Your task to perform on an android device: turn on location history Image 0: 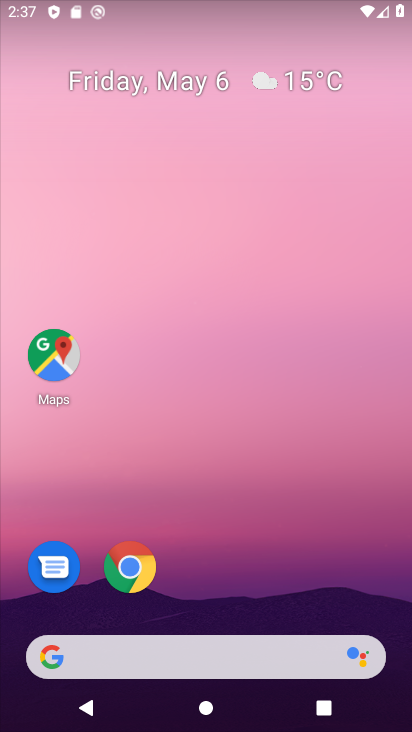
Step 0: drag from (187, 634) to (318, 44)
Your task to perform on an android device: turn on location history Image 1: 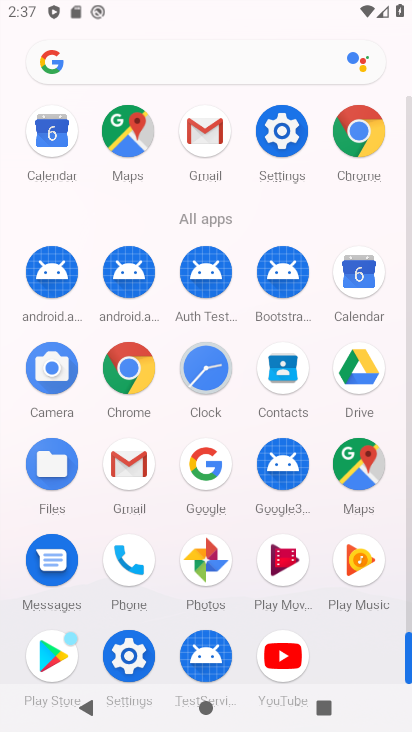
Step 1: click (122, 668)
Your task to perform on an android device: turn on location history Image 2: 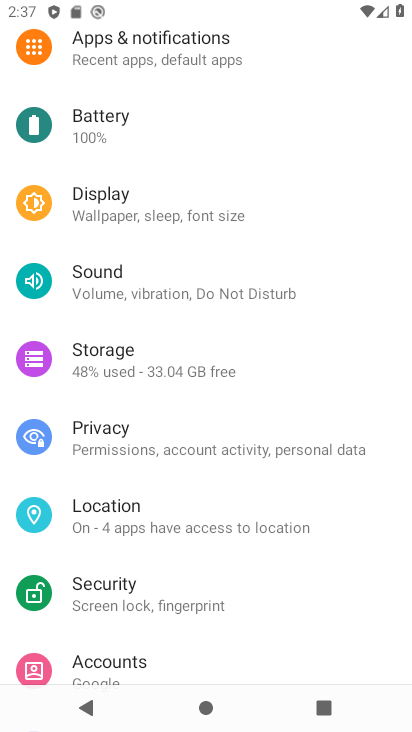
Step 2: drag from (167, 651) to (205, 497)
Your task to perform on an android device: turn on location history Image 3: 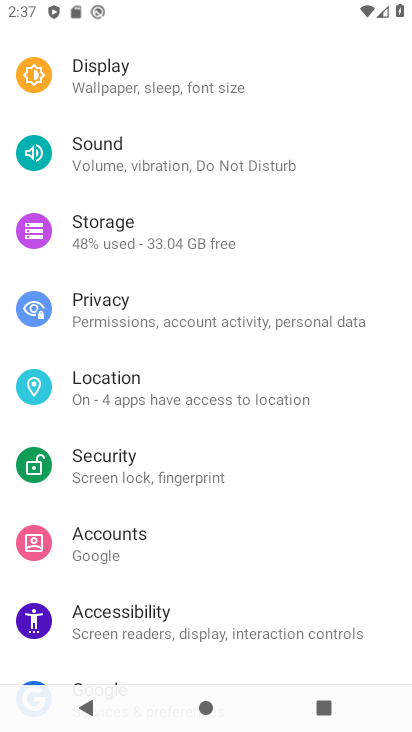
Step 3: click (178, 384)
Your task to perform on an android device: turn on location history Image 4: 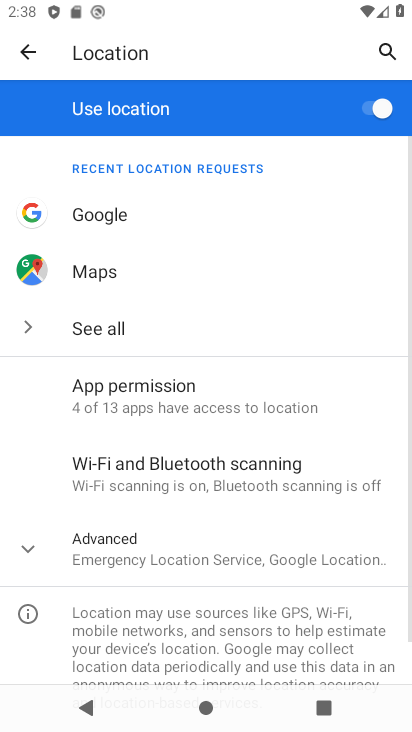
Step 4: click (228, 561)
Your task to perform on an android device: turn on location history Image 5: 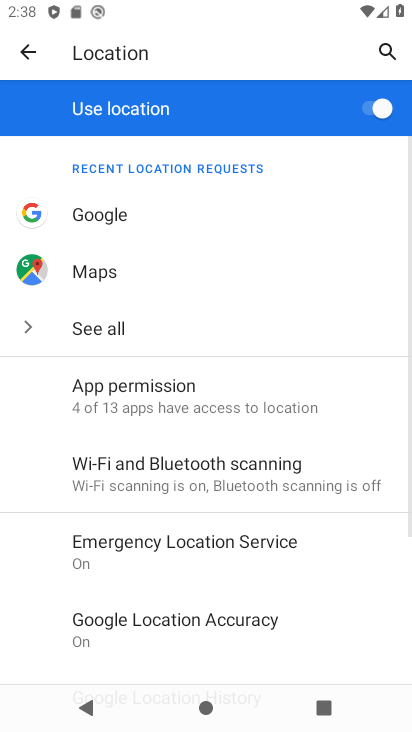
Step 5: drag from (117, 696) to (206, 419)
Your task to perform on an android device: turn on location history Image 6: 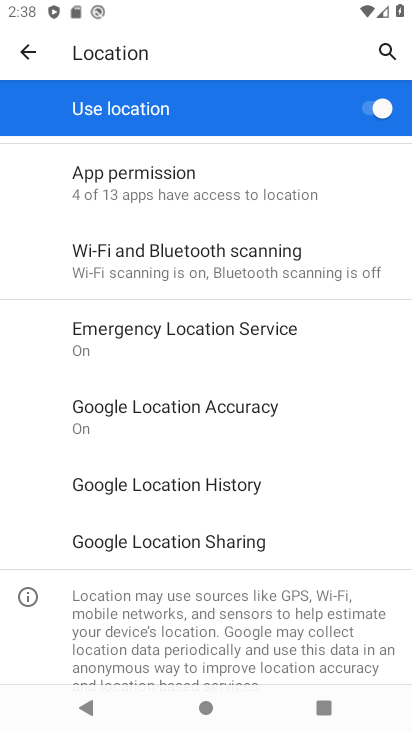
Step 6: click (249, 489)
Your task to perform on an android device: turn on location history Image 7: 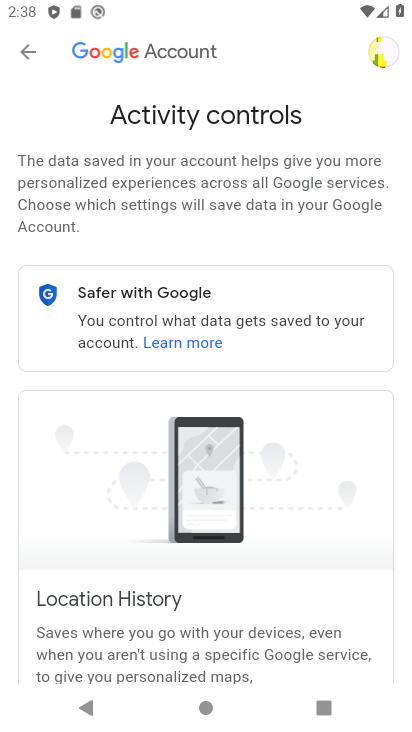
Step 7: drag from (183, 657) to (280, 218)
Your task to perform on an android device: turn on location history Image 8: 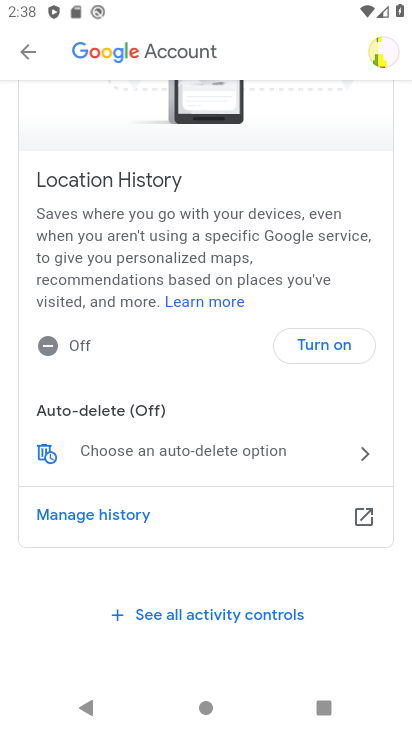
Step 8: click (329, 341)
Your task to perform on an android device: turn on location history Image 9: 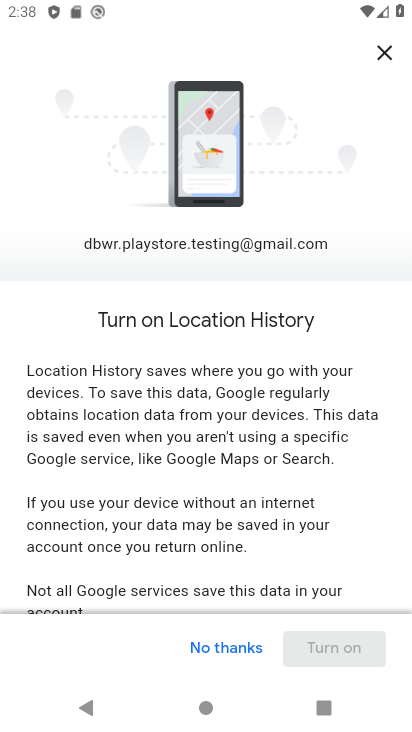
Step 9: drag from (326, 595) to (410, 115)
Your task to perform on an android device: turn on location history Image 10: 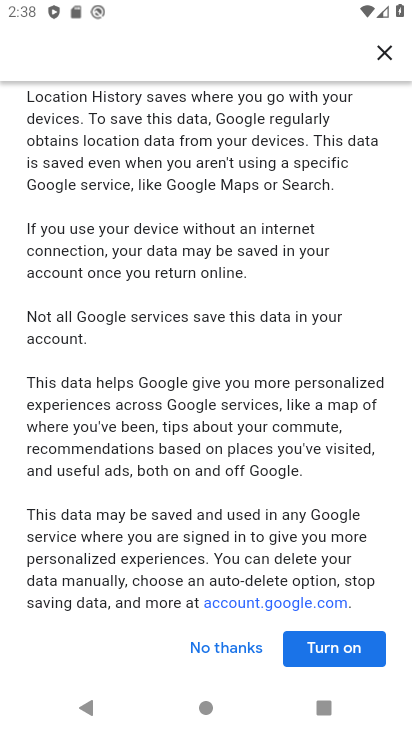
Step 10: click (327, 633)
Your task to perform on an android device: turn on location history Image 11: 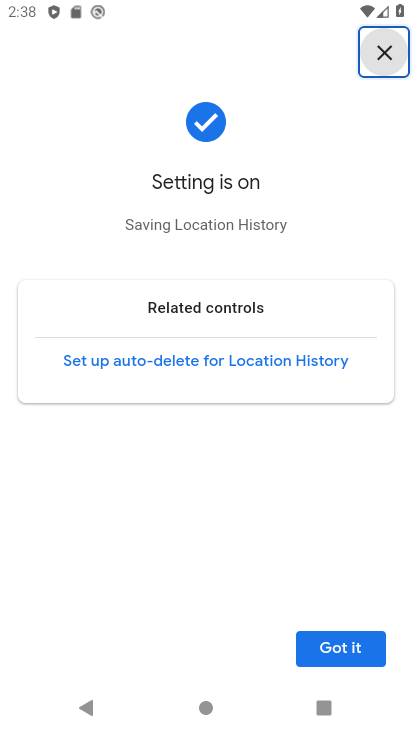
Step 11: click (325, 653)
Your task to perform on an android device: turn on location history Image 12: 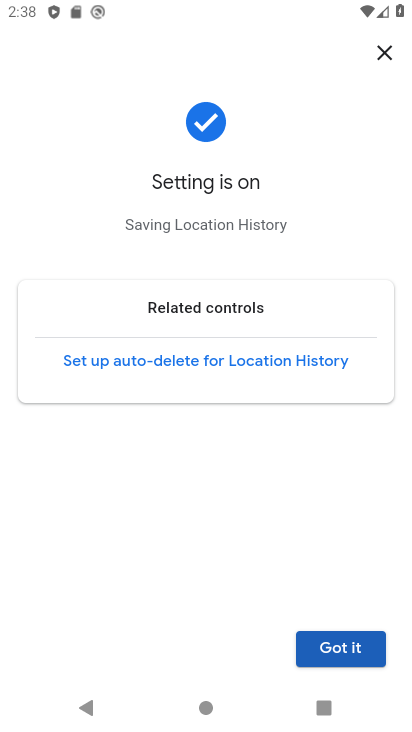
Step 12: click (349, 657)
Your task to perform on an android device: turn on location history Image 13: 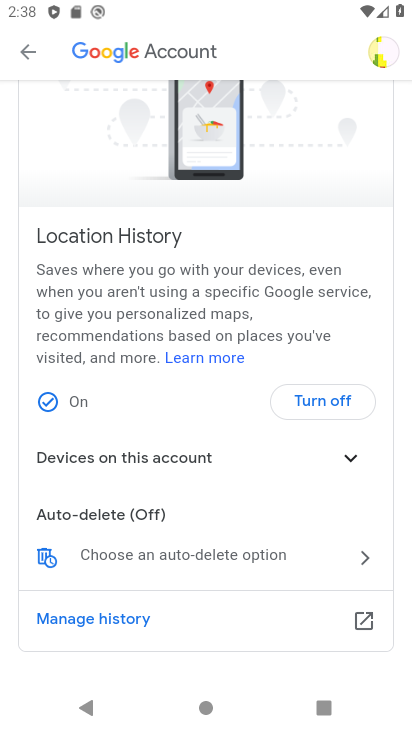
Step 13: task complete